Your task to perform on an android device: Search for razer kraken on ebay.com, select the first entry, add it to the cart, then select checkout. Image 0: 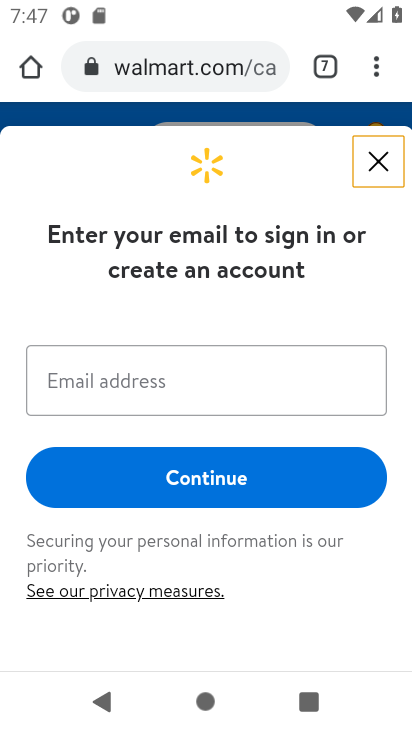
Step 0: click (227, 72)
Your task to perform on an android device: Search for razer kraken on ebay.com, select the first entry, add it to the cart, then select checkout. Image 1: 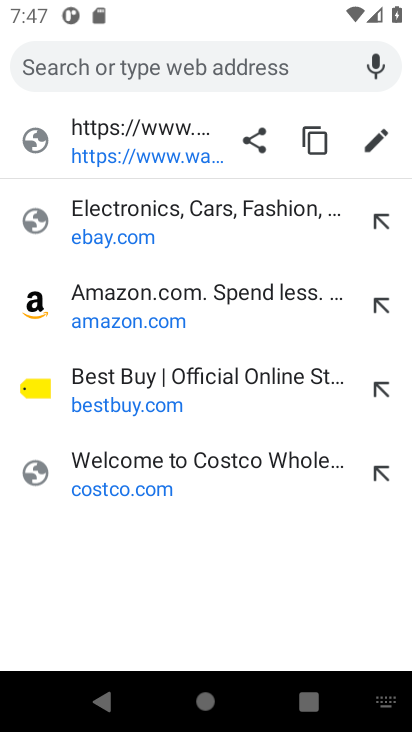
Step 1: click (116, 222)
Your task to perform on an android device: Search for razer kraken on ebay.com, select the first entry, add it to the cart, then select checkout. Image 2: 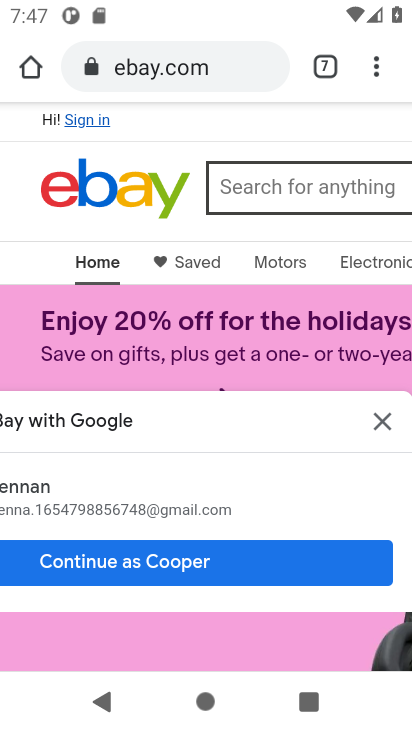
Step 2: click (275, 195)
Your task to perform on an android device: Search for razer kraken on ebay.com, select the first entry, add it to the cart, then select checkout. Image 3: 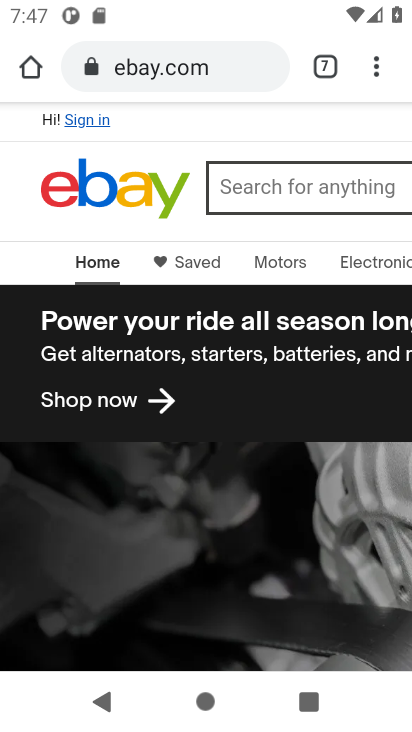
Step 3: click (325, 195)
Your task to perform on an android device: Search for razer kraken on ebay.com, select the first entry, add it to the cart, then select checkout. Image 4: 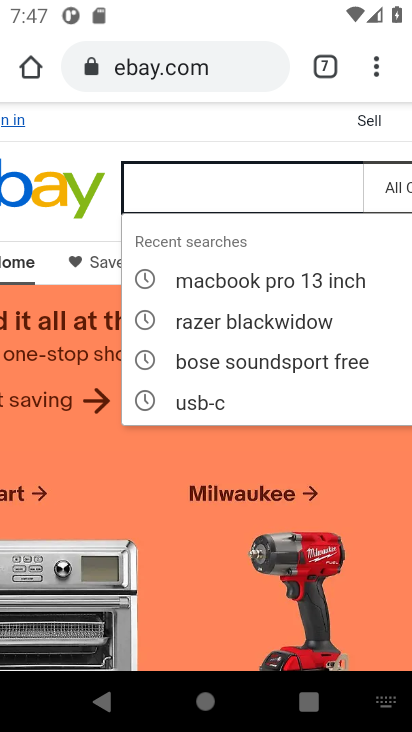
Step 4: type "razer kraken "
Your task to perform on an android device: Search for razer kraken on ebay.com, select the first entry, add it to the cart, then select checkout. Image 5: 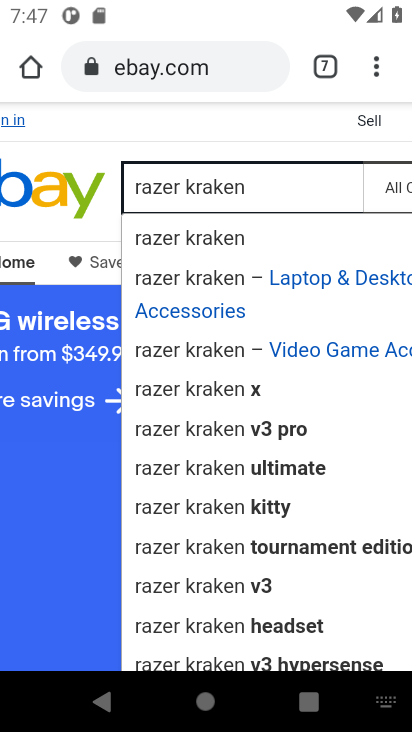
Step 5: click (229, 234)
Your task to perform on an android device: Search for razer kraken on ebay.com, select the first entry, add it to the cart, then select checkout. Image 6: 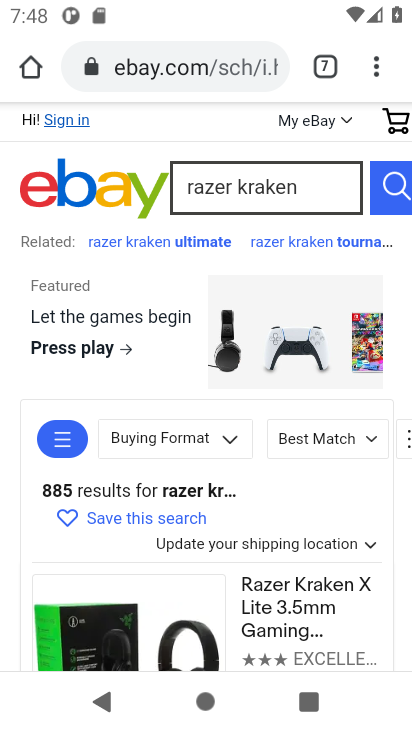
Step 6: drag from (226, 526) to (229, 309)
Your task to perform on an android device: Search for razer kraken on ebay.com, select the first entry, add it to the cart, then select checkout. Image 7: 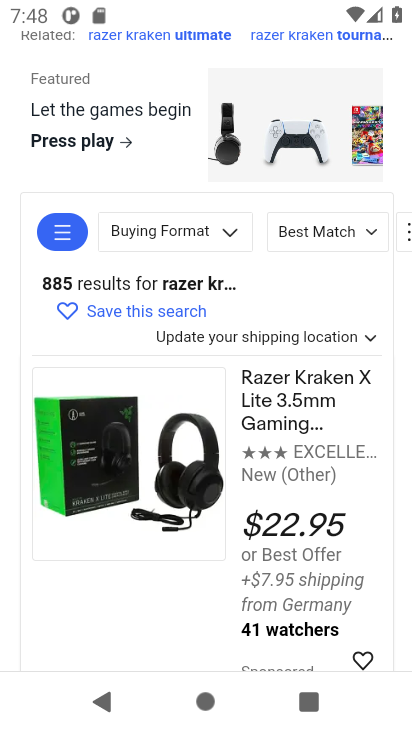
Step 7: drag from (229, 514) to (218, 300)
Your task to perform on an android device: Search for razer kraken on ebay.com, select the first entry, add it to the cart, then select checkout. Image 8: 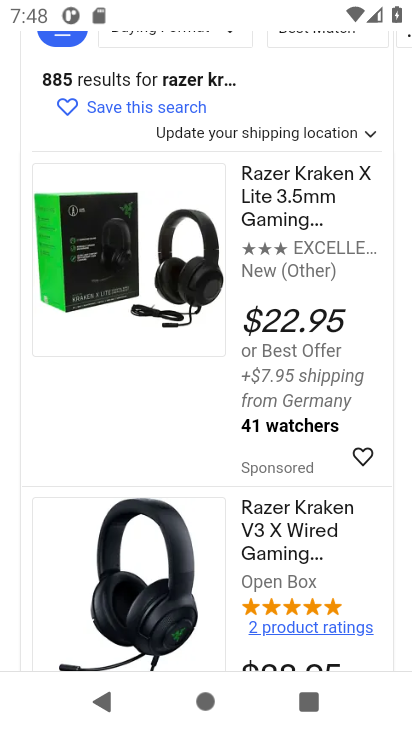
Step 8: click (145, 304)
Your task to perform on an android device: Search for razer kraken on ebay.com, select the first entry, add it to the cart, then select checkout. Image 9: 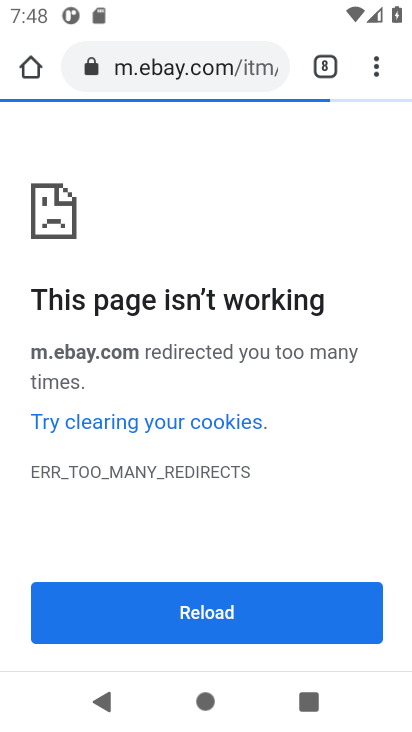
Step 9: task complete